Your task to perform on an android device: Go to sound settings Image 0: 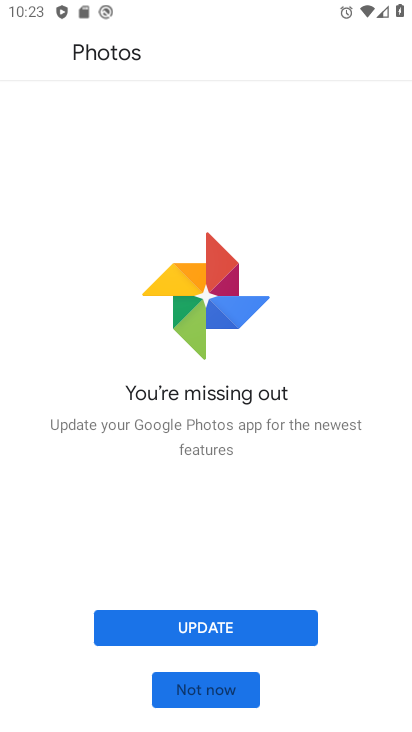
Step 0: click (212, 686)
Your task to perform on an android device: Go to sound settings Image 1: 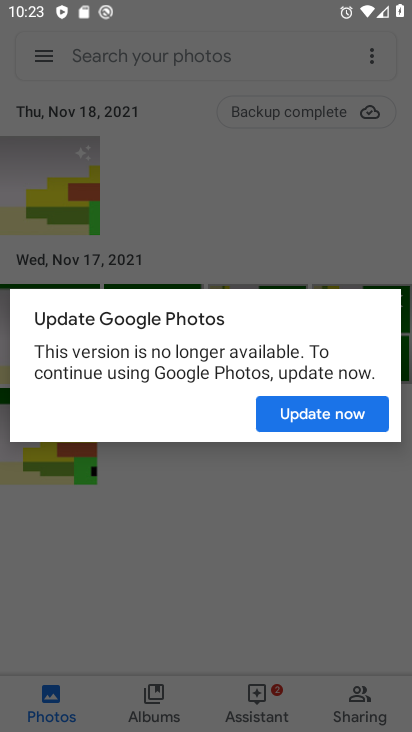
Step 1: press home button
Your task to perform on an android device: Go to sound settings Image 2: 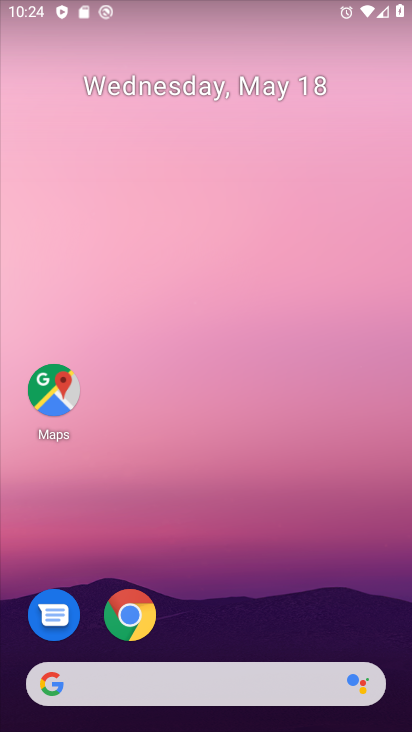
Step 2: drag from (207, 653) to (205, 252)
Your task to perform on an android device: Go to sound settings Image 3: 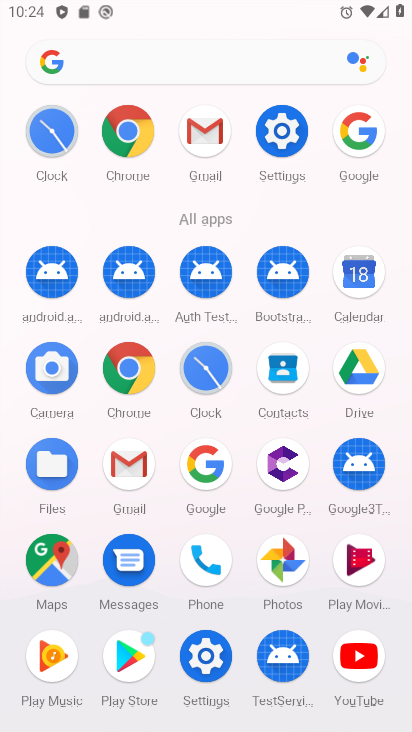
Step 3: click (292, 137)
Your task to perform on an android device: Go to sound settings Image 4: 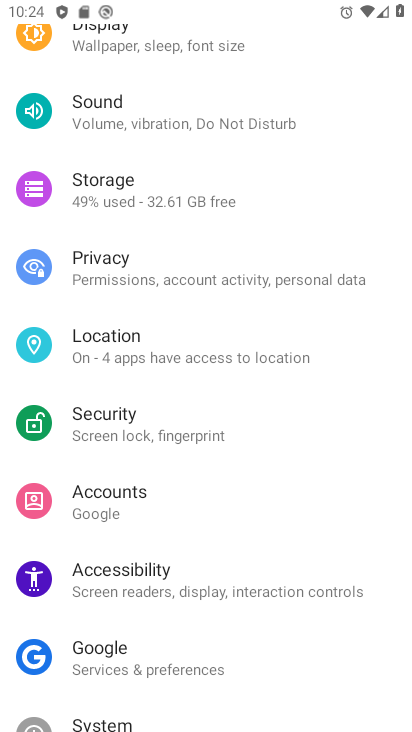
Step 4: drag from (111, 684) to (109, 237)
Your task to perform on an android device: Go to sound settings Image 5: 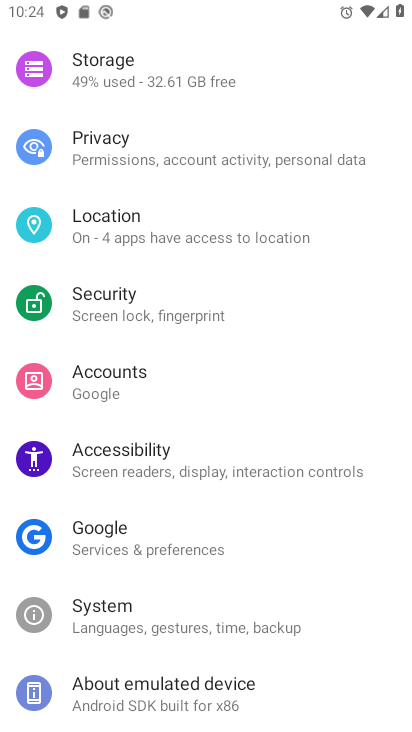
Step 5: drag from (191, 85) to (209, 517)
Your task to perform on an android device: Go to sound settings Image 6: 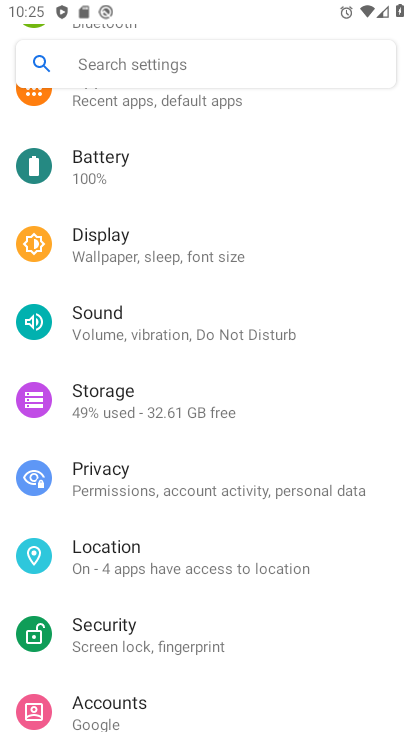
Step 6: click (106, 320)
Your task to perform on an android device: Go to sound settings Image 7: 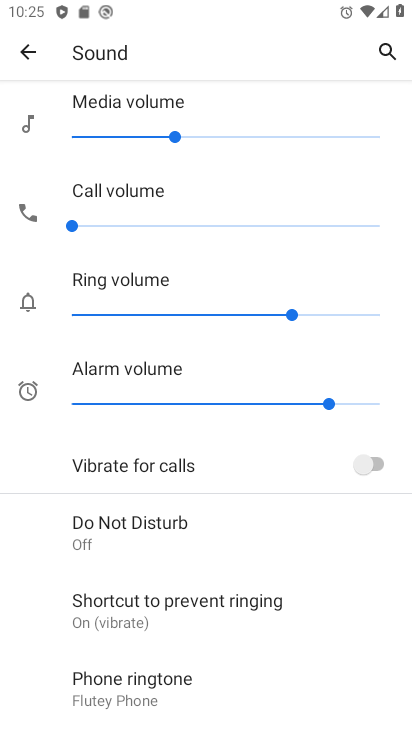
Step 7: task complete